Your task to perform on an android device: When is my next appointment? Image 0: 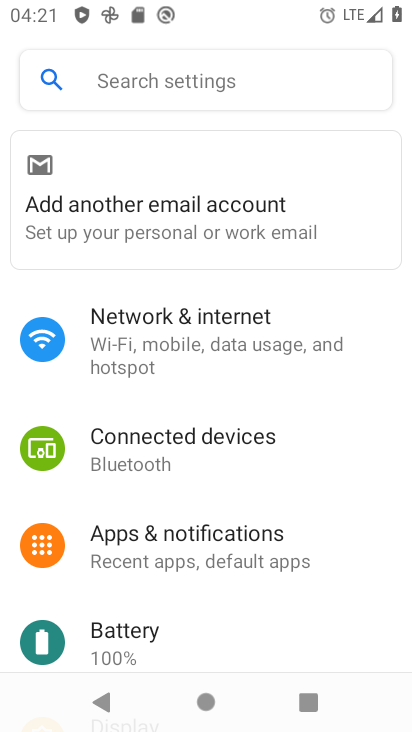
Step 0: press home button
Your task to perform on an android device: When is my next appointment? Image 1: 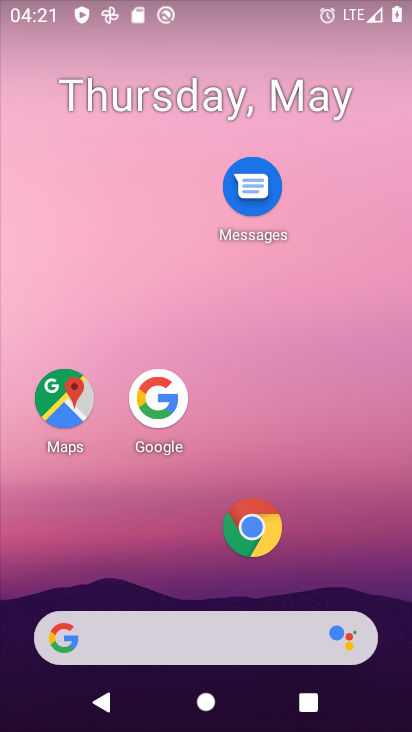
Step 1: drag from (206, 587) to (198, 114)
Your task to perform on an android device: When is my next appointment? Image 2: 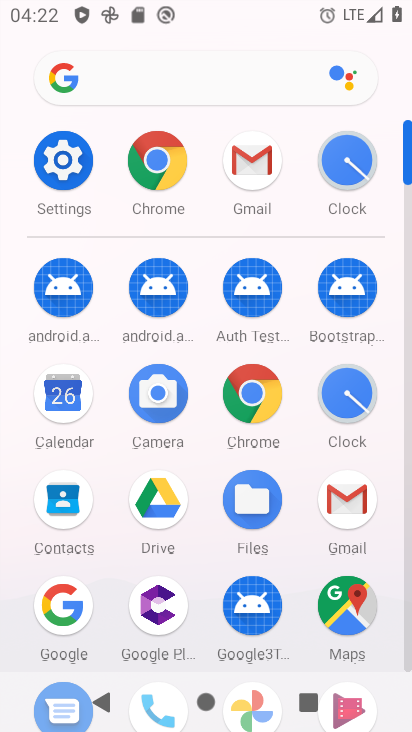
Step 2: click (60, 390)
Your task to perform on an android device: When is my next appointment? Image 3: 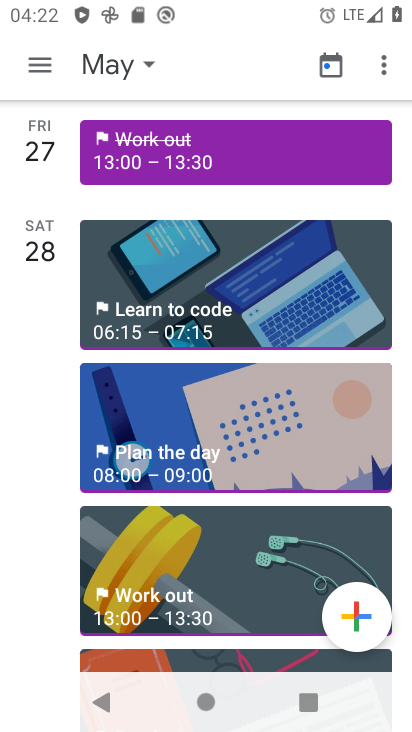
Step 3: click (123, 76)
Your task to perform on an android device: When is my next appointment? Image 4: 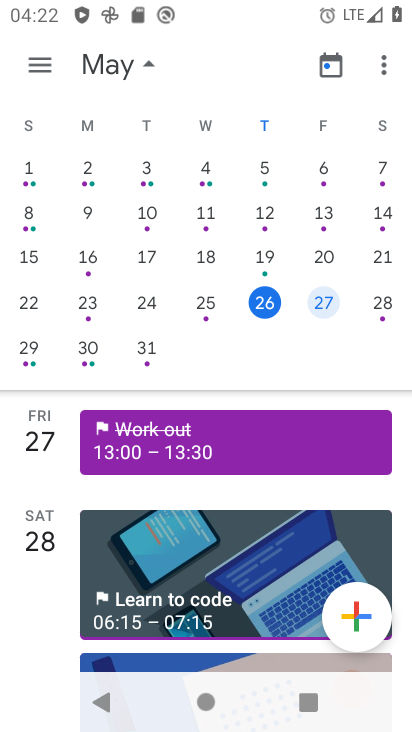
Step 4: click (269, 301)
Your task to perform on an android device: When is my next appointment? Image 5: 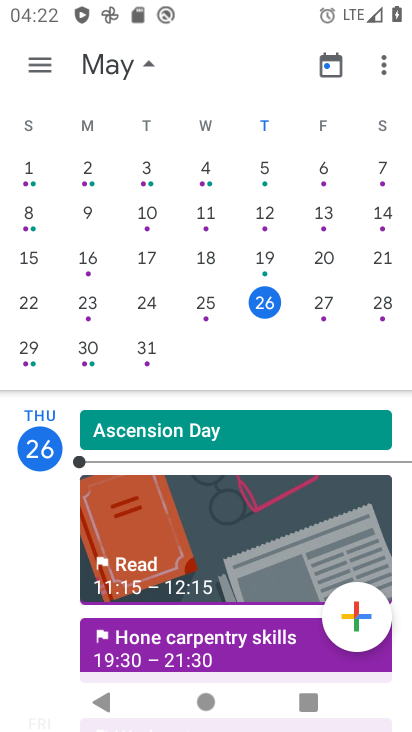
Step 5: drag from (265, 463) to (319, 185)
Your task to perform on an android device: When is my next appointment? Image 6: 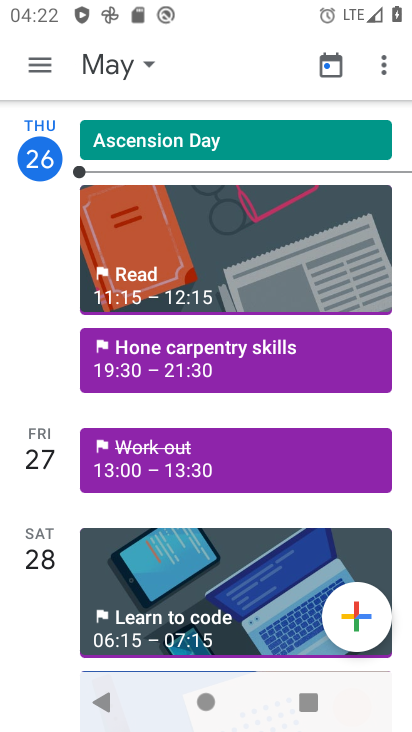
Step 6: click (220, 278)
Your task to perform on an android device: When is my next appointment? Image 7: 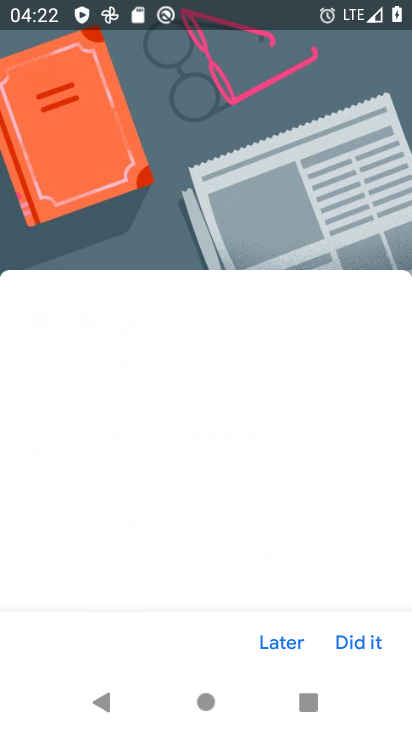
Step 7: task complete